Your task to perform on an android device: What's on my calendar tomorrow? Image 0: 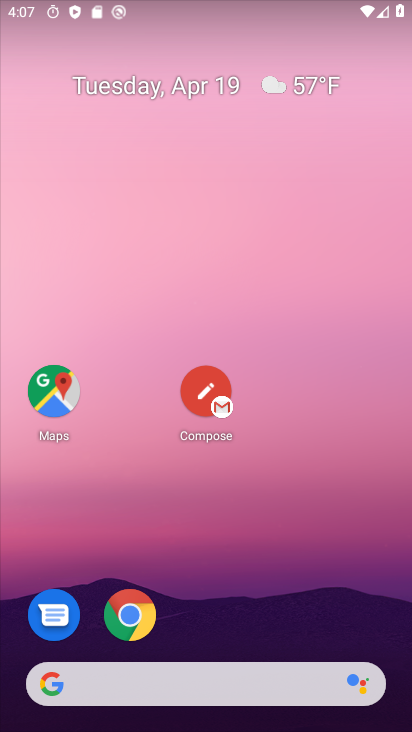
Step 0: drag from (264, 626) to (166, 33)
Your task to perform on an android device: What's on my calendar tomorrow? Image 1: 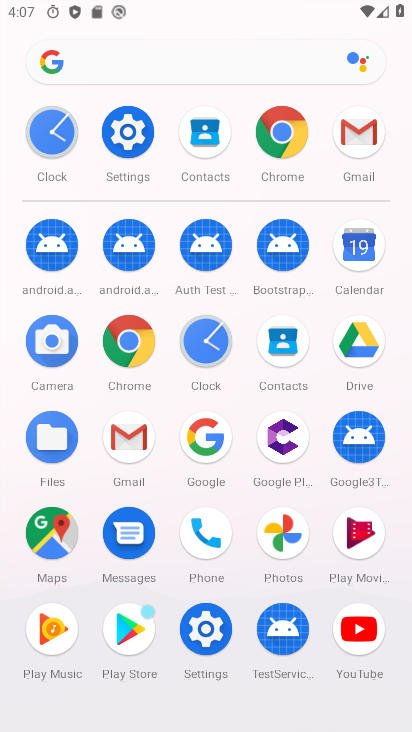
Step 1: click (355, 256)
Your task to perform on an android device: What's on my calendar tomorrow? Image 2: 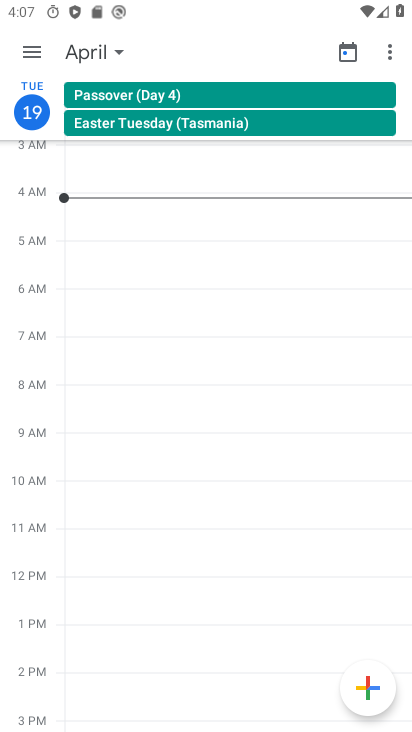
Step 2: click (118, 52)
Your task to perform on an android device: What's on my calendar tomorrow? Image 3: 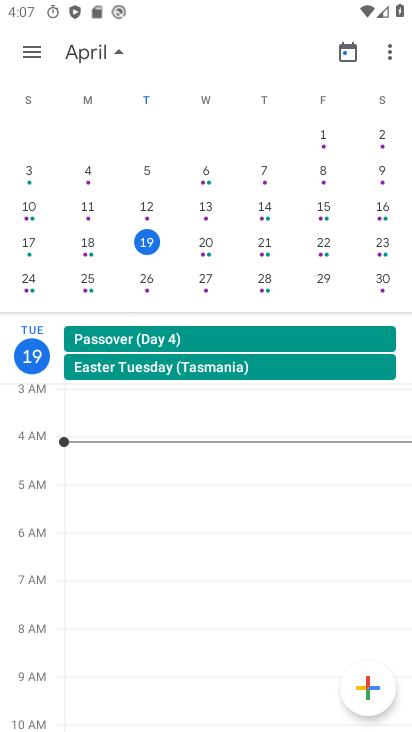
Step 3: click (206, 243)
Your task to perform on an android device: What's on my calendar tomorrow? Image 4: 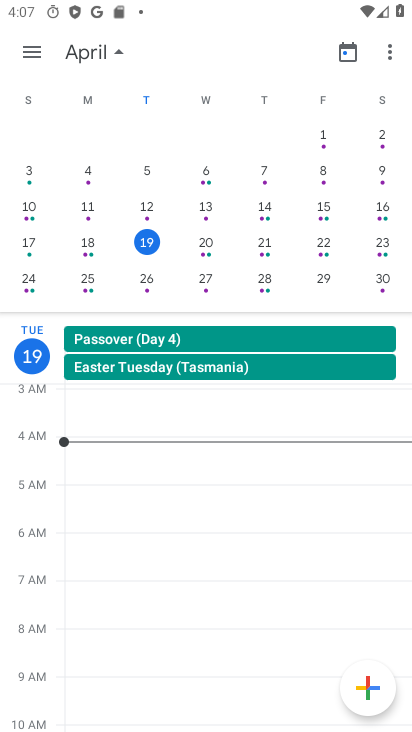
Step 4: click (204, 244)
Your task to perform on an android device: What's on my calendar tomorrow? Image 5: 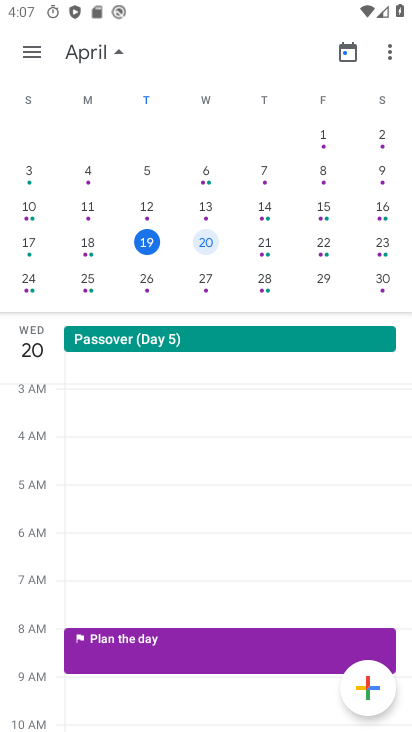
Step 5: task complete